Your task to perform on an android device: allow cookies in the chrome app Image 0: 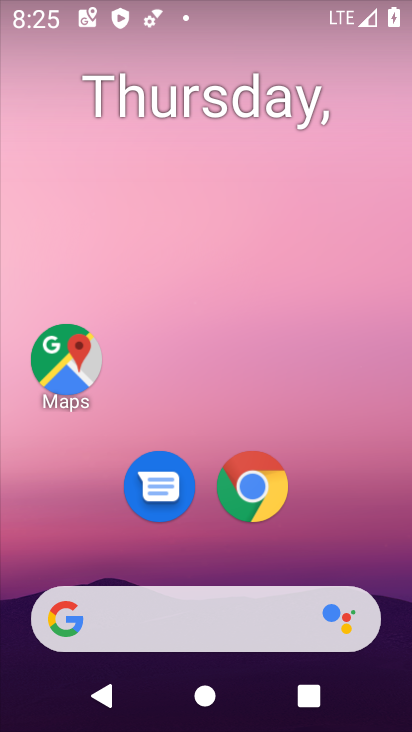
Step 0: click (249, 508)
Your task to perform on an android device: allow cookies in the chrome app Image 1: 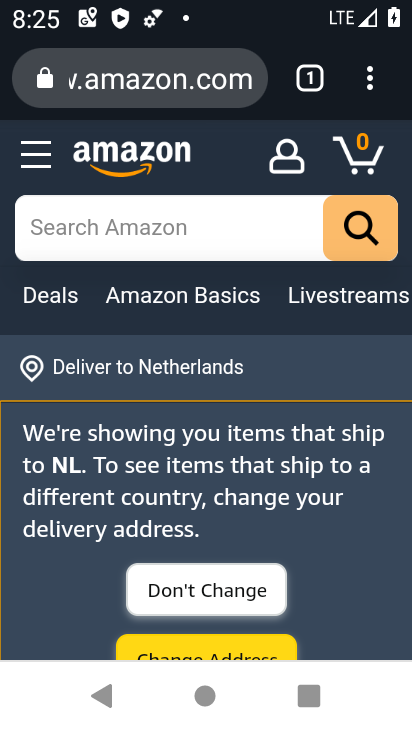
Step 1: click (367, 70)
Your task to perform on an android device: allow cookies in the chrome app Image 2: 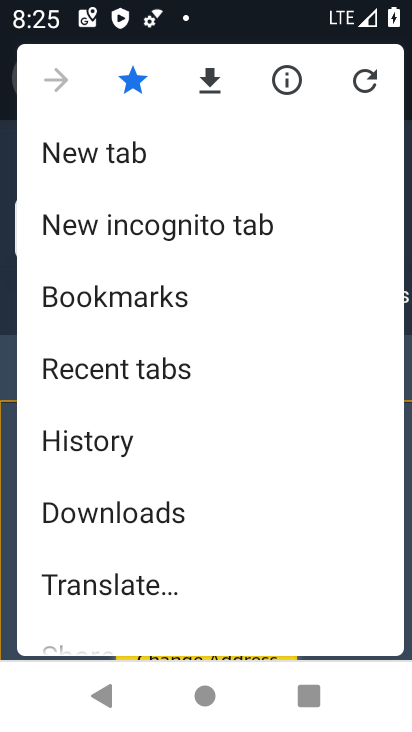
Step 2: drag from (136, 515) to (300, 21)
Your task to perform on an android device: allow cookies in the chrome app Image 3: 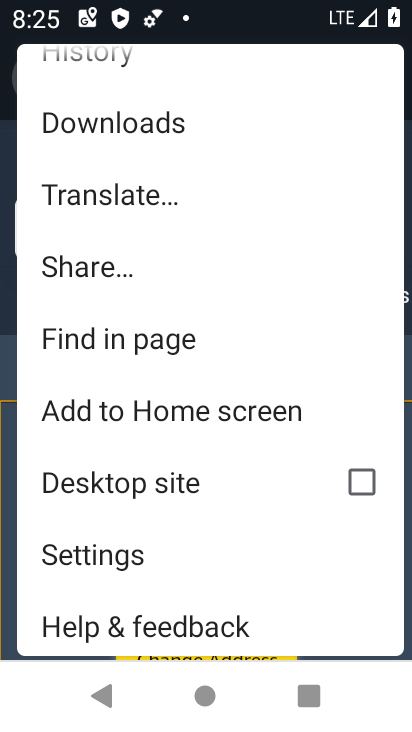
Step 3: click (181, 554)
Your task to perform on an android device: allow cookies in the chrome app Image 4: 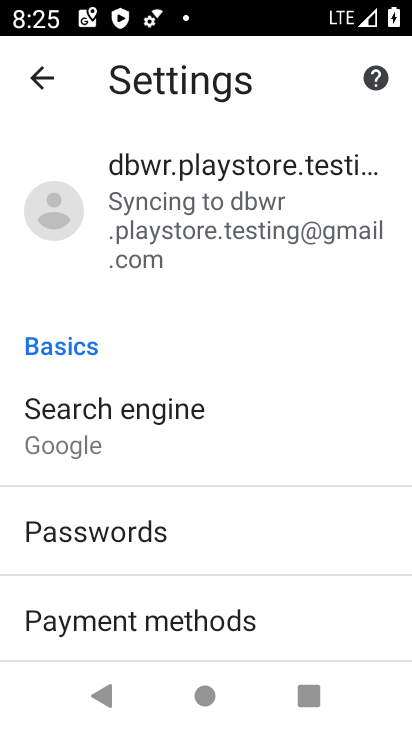
Step 4: drag from (121, 596) to (120, 221)
Your task to perform on an android device: allow cookies in the chrome app Image 5: 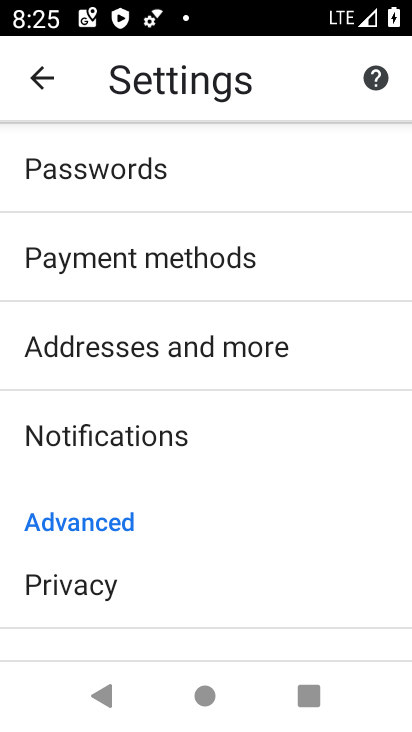
Step 5: drag from (154, 565) to (196, 124)
Your task to perform on an android device: allow cookies in the chrome app Image 6: 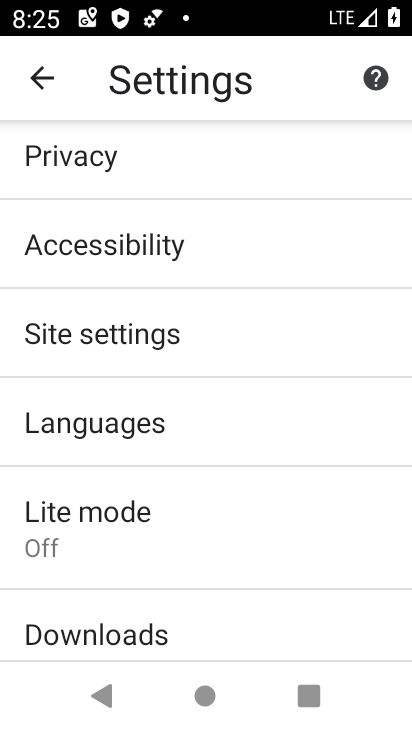
Step 6: click (103, 334)
Your task to perform on an android device: allow cookies in the chrome app Image 7: 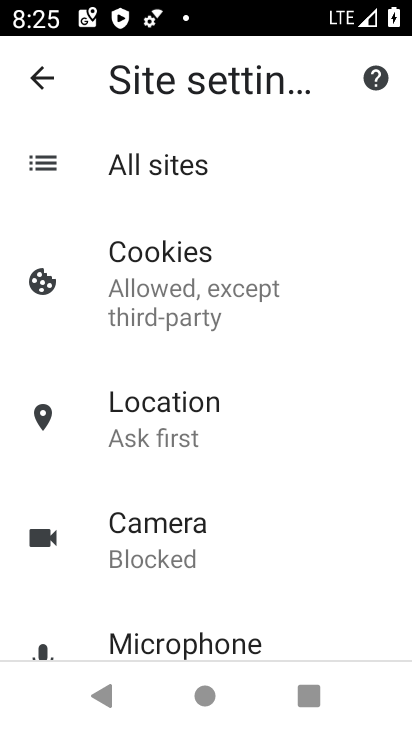
Step 7: click (143, 297)
Your task to perform on an android device: allow cookies in the chrome app Image 8: 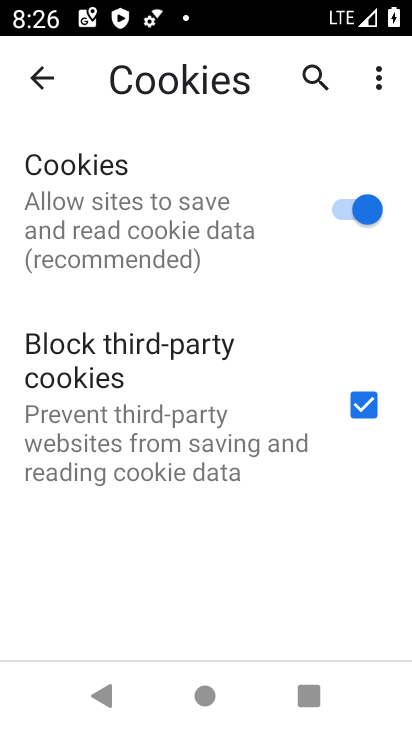
Step 8: task complete